Your task to perform on an android device: toggle improve location accuracy Image 0: 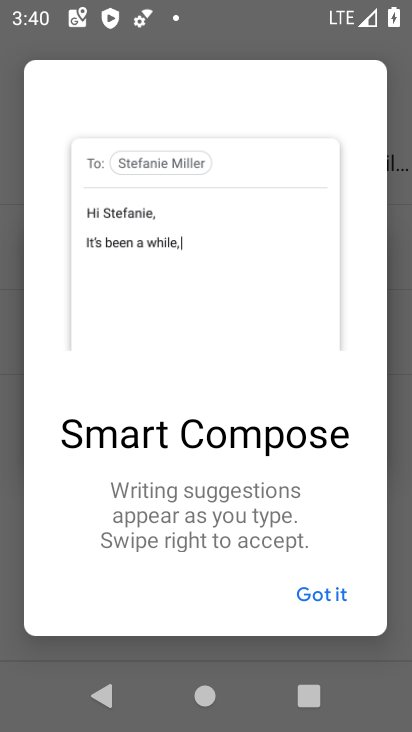
Step 0: press home button
Your task to perform on an android device: toggle improve location accuracy Image 1: 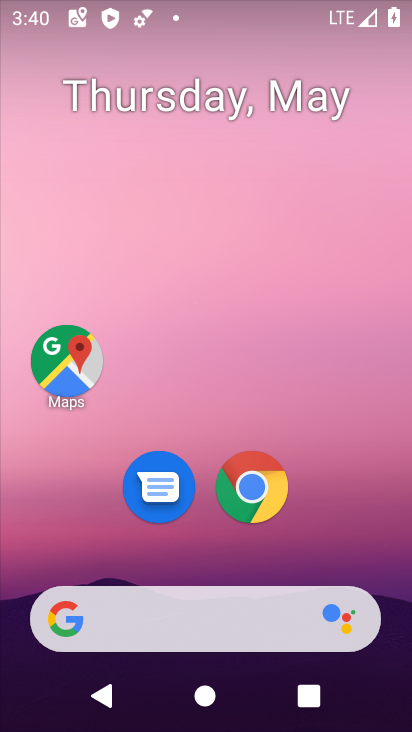
Step 1: drag from (148, 632) to (228, 159)
Your task to perform on an android device: toggle improve location accuracy Image 2: 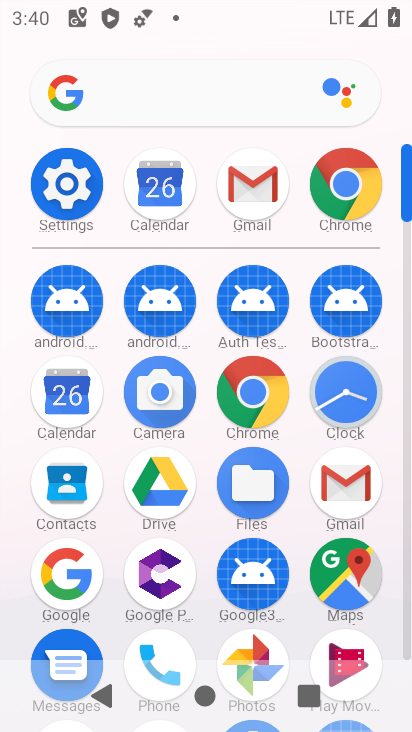
Step 2: click (71, 192)
Your task to perform on an android device: toggle improve location accuracy Image 3: 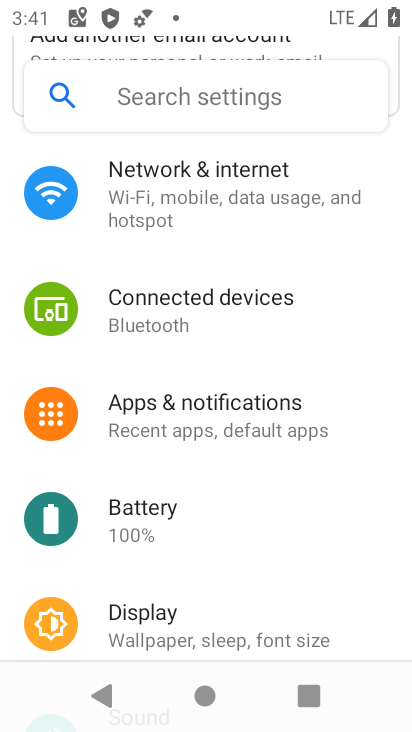
Step 3: drag from (255, 342) to (236, 657)
Your task to perform on an android device: toggle improve location accuracy Image 4: 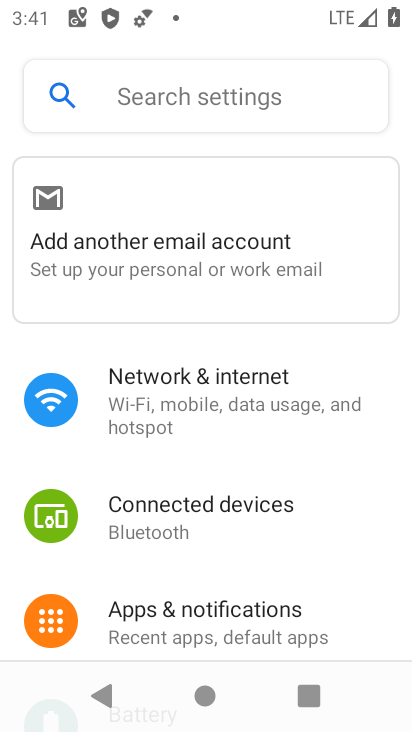
Step 4: drag from (226, 528) to (295, 164)
Your task to perform on an android device: toggle improve location accuracy Image 5: 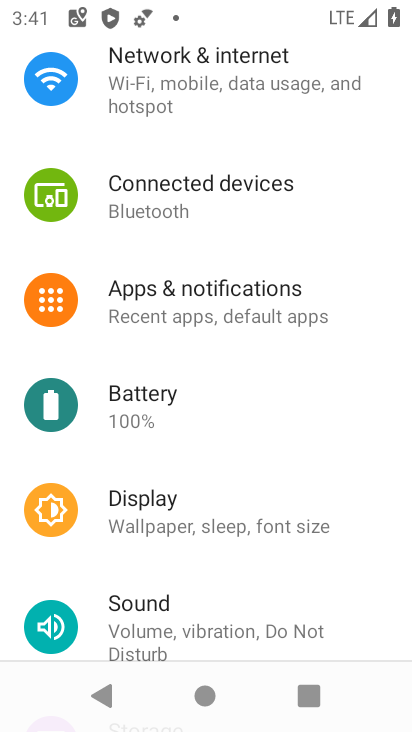
Step 5: drag from (229, 494) to (265, 311)
Your task to perform on an android device: toggle improve location accuracy Image 6: 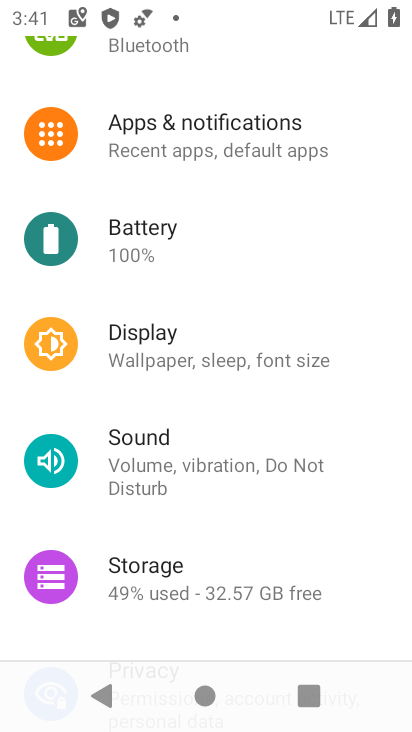
Step 6: drag from (212, 482) to (282, 183)
Your task to perform on an android device: toggle improve location accuracy Image 7: 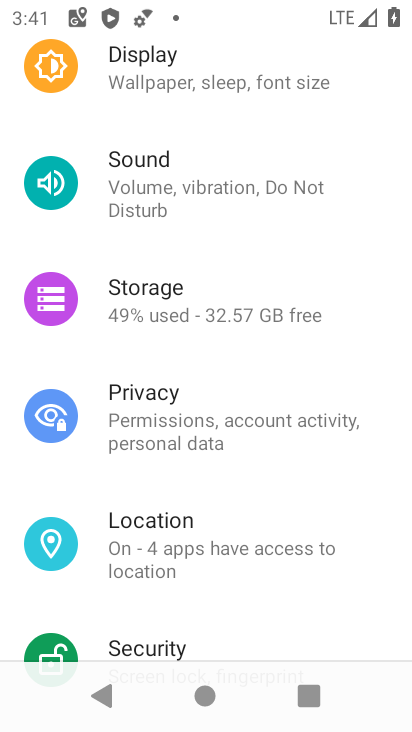
Step 7: click (227, 539)
Your task to perform on an android device: toggle improve location accuracy Image 8: 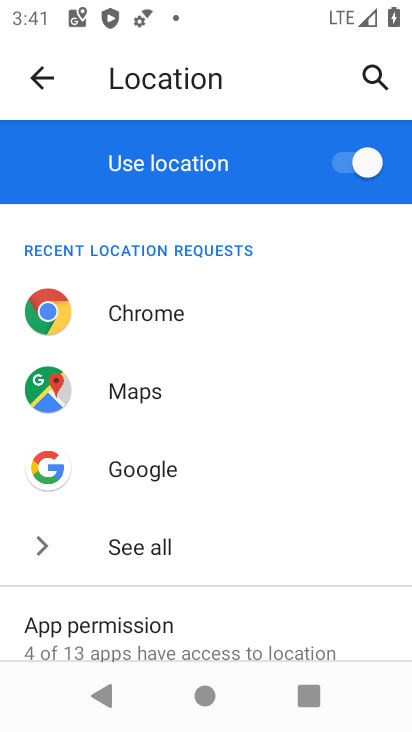
Step 8: drag from (217, 539) to (286, 211)
Your task to perform on an android device: toggle improve location accuracy Image 9: 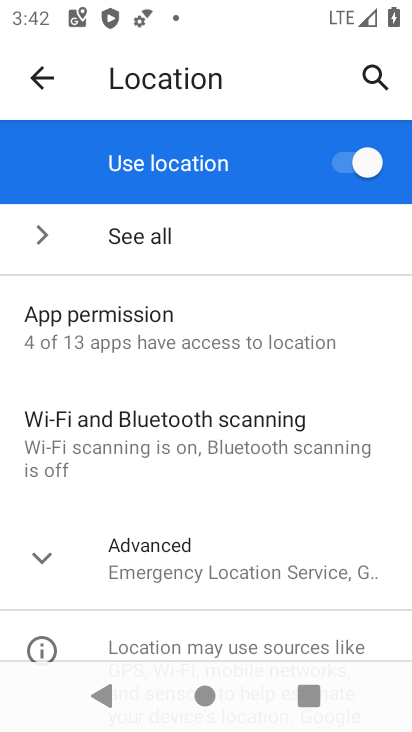
Step 9: drag from (221, 515) to (262, 187)
Your task to perform on an android device: toggle improve location accuracy Image 10: 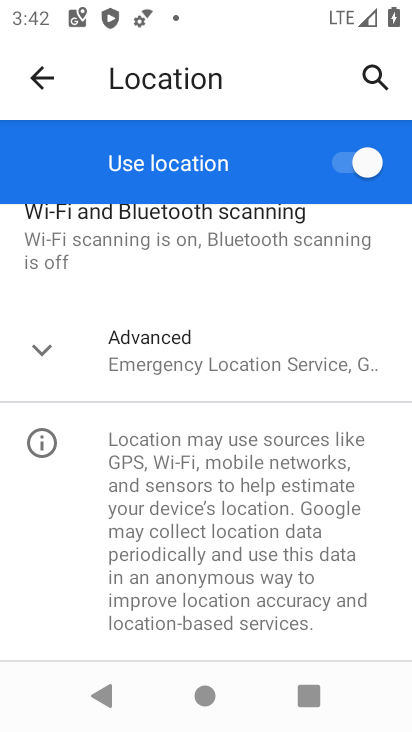
Step 10: click (202, 360)
Your task to perform on an android device: toggle improve location accuracy Image 11: 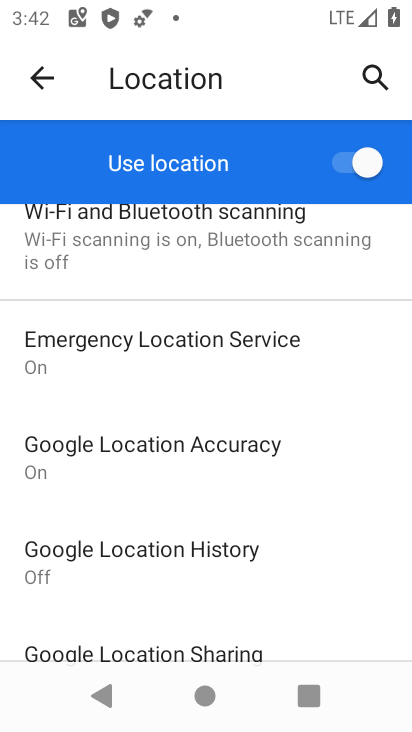
Step 11: click (199, 451)
Your task to perform on an android device: toggle improve location accuracy Image 12: 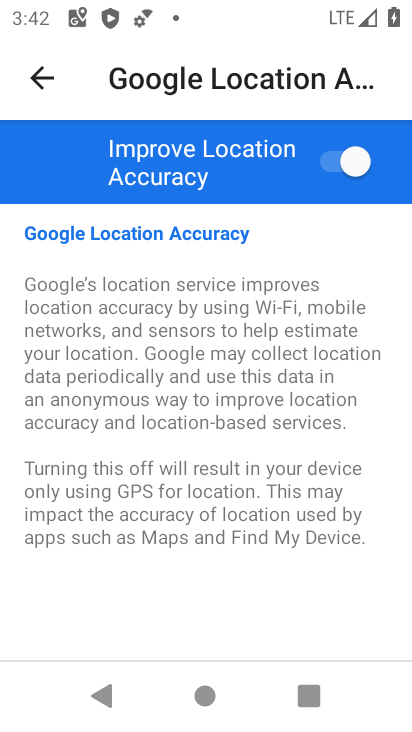
Step 12: click (319, 162)
Your task to perform on an android device: toggle improve location accuracy Image 13: 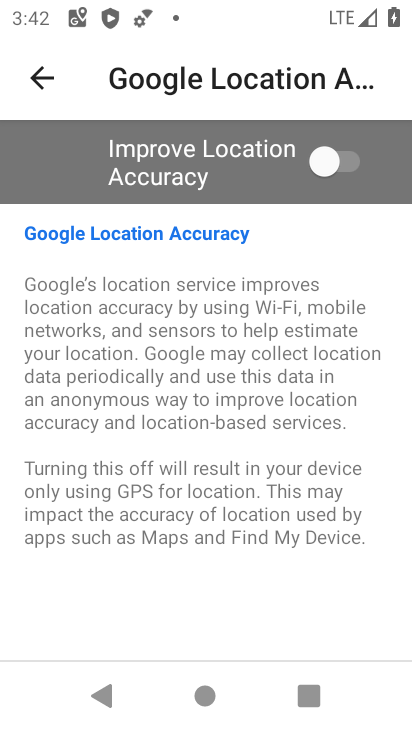
Step 13: task complete